Your task to perform on an android device: remove spam from my inbox in the gmail app Image 0: 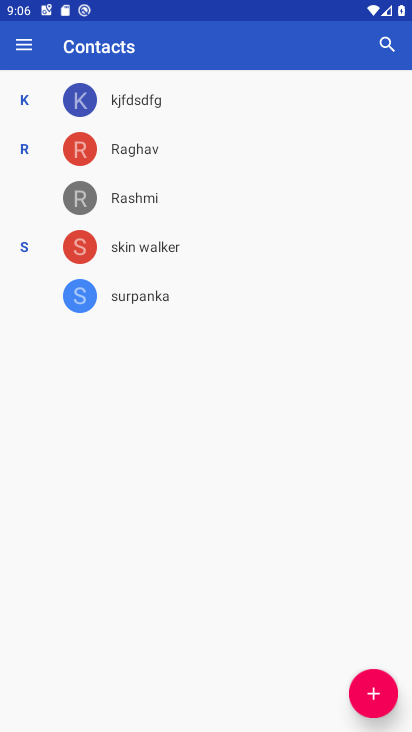
Step 0: press home button
Your task to perform on an android device: remove spam from my inbox in the gmail app Image 1: 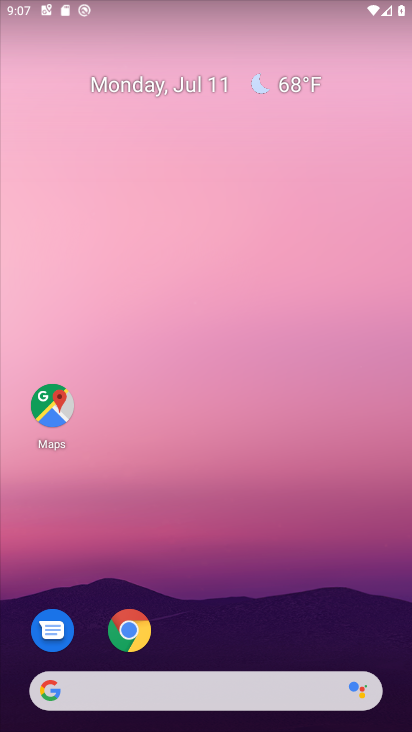
Step 1: drag from (184, 642) to (254, 15)
Your task to perform on an android device: remove spam from my inbox in the gmail app Image 2: 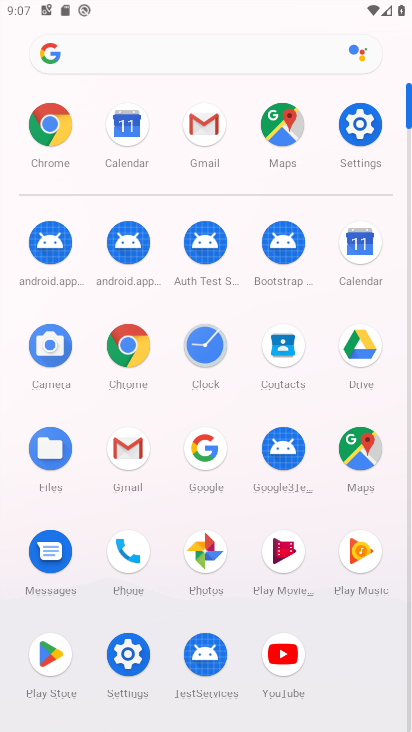
Step 2: click (124, 448)
Your task to perform on an android device: remove spam from my inbox in the gmail app Image 3: 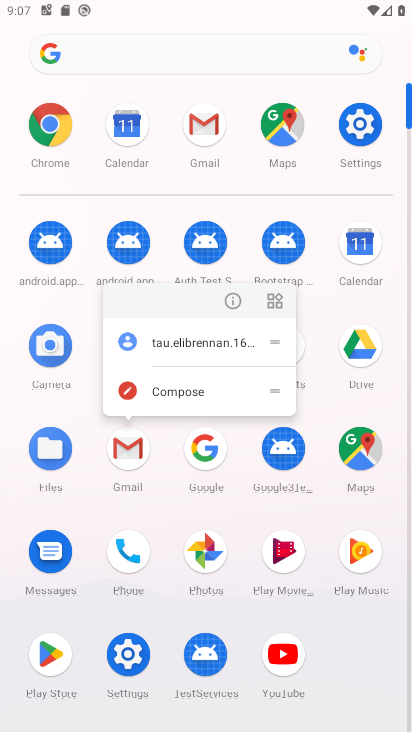
Step 3: click (115, 471)
Your task to perform on an android device: remove spam from my inbox in the gmail app Image 4: 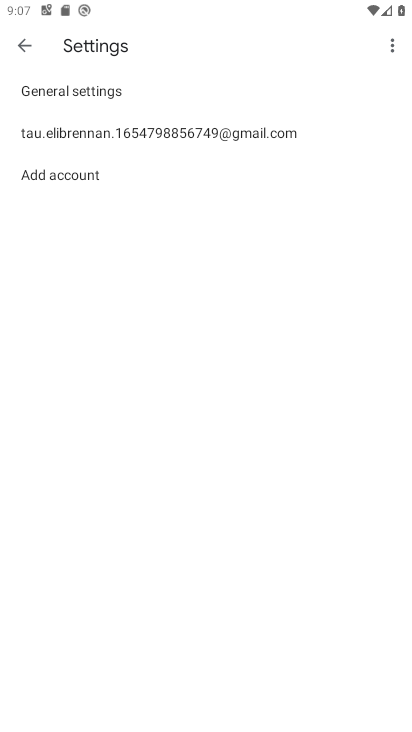
Step 4: click (32, 49)
Your task to perform on an android device: remove spam from my inbox in the gmail app Image 5: 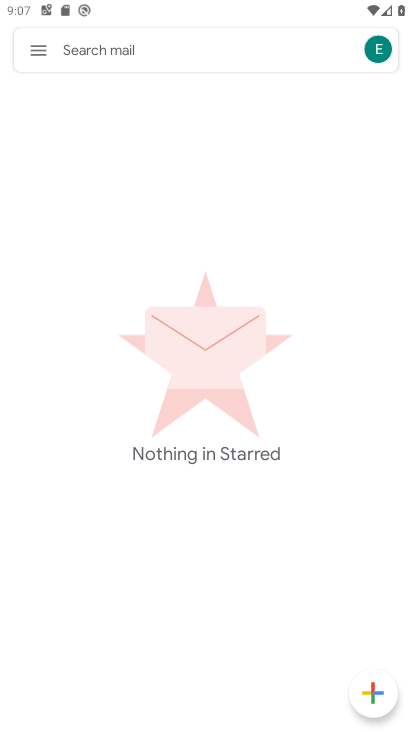
Step 5: click (35, 53)
Your task to perform on an android device: remove spam from my inbox in the gmail app Image 6: 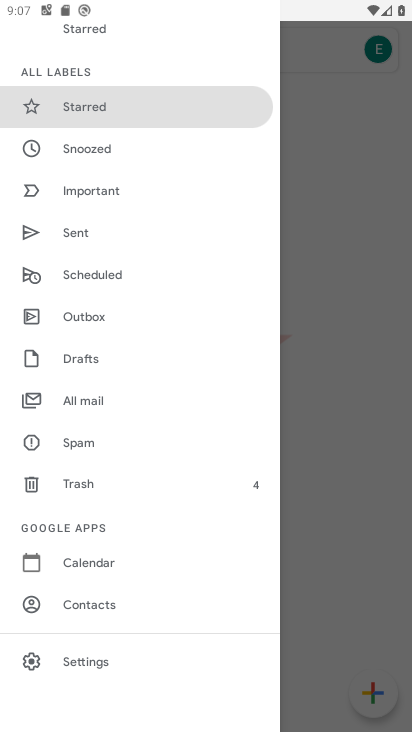
Step 6: click (88, 445)
Your task to perform on an android device: remove spam from my inbox in the gmail app Image 7: 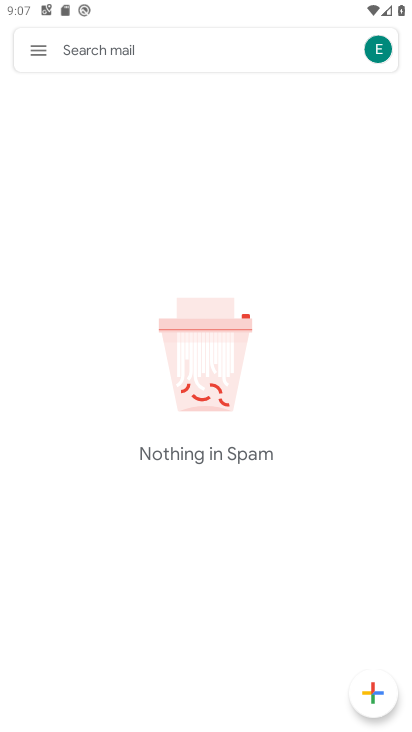
Step 7: task complete